Your task to perform on an android device: open chrome privacy settings Image 0: 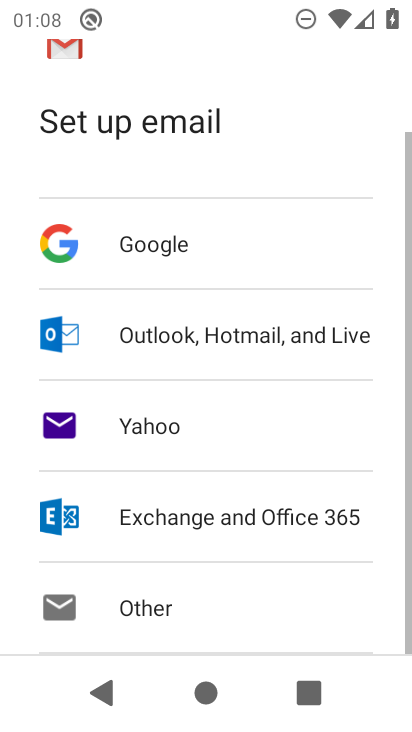
Step 0: drag from (199, 519) to (197, 214)
Your task to perform on an android device: open chrome privacy settings Image 1: 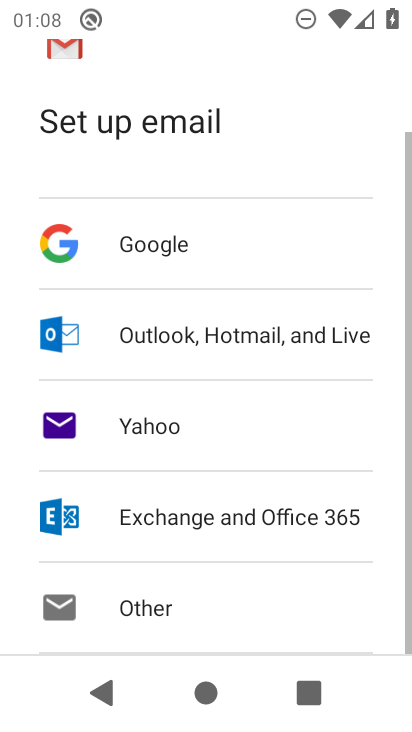
Step 1: drag from (227, 479) to (226, 258)
Your task to perform on an android device: open chrome privacy settings Image 2: 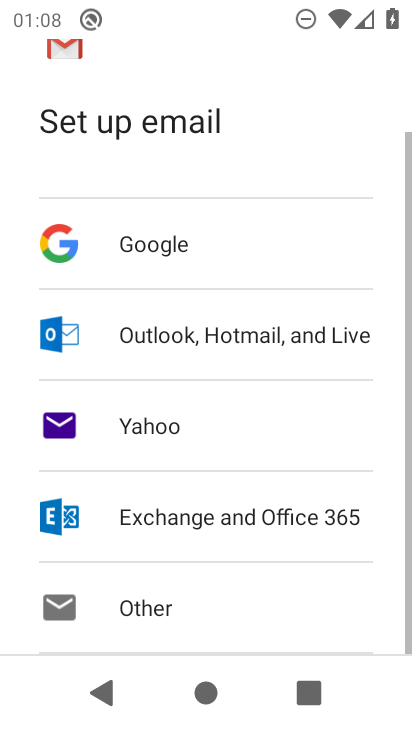
Step 2: drag from (206, 493) to (233, 151)
Your task to perform on an android device: open chrome privacy settings Image 3: 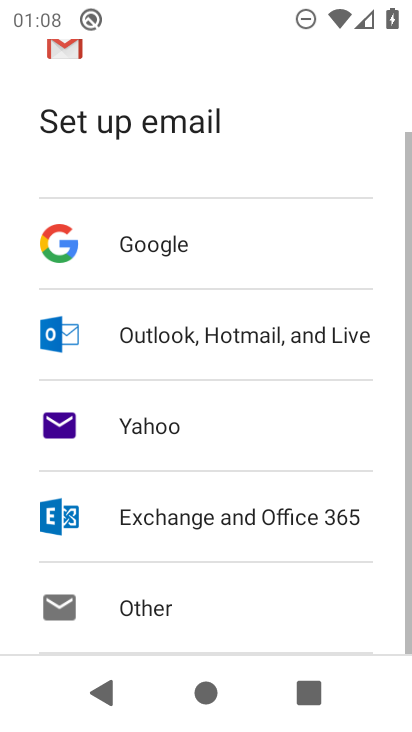
Step 3: press home button
Your task to perform on an android device: open chrome privacy settings Image 4: 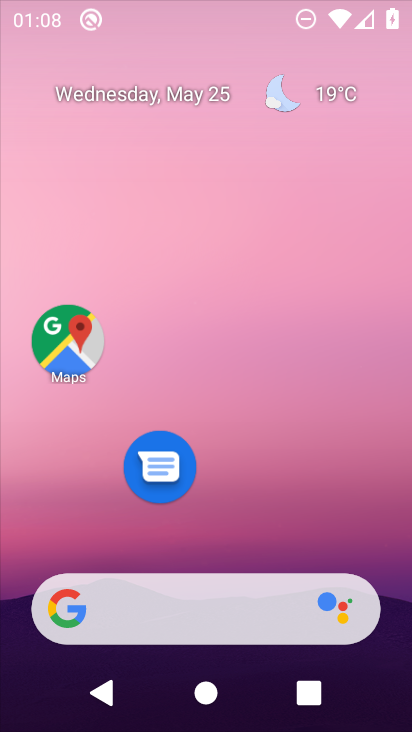
Step 4: drag from (158, 524) to (169, 197)
Your task to perform on an android device: open chrome privacy settings Image 5: 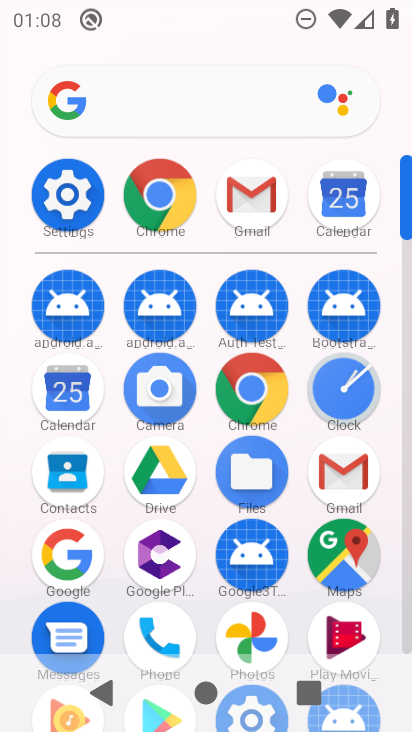
Step 5: click (70, 188)
Your task to perform on an android device: open chrome privacy settings Image 6: 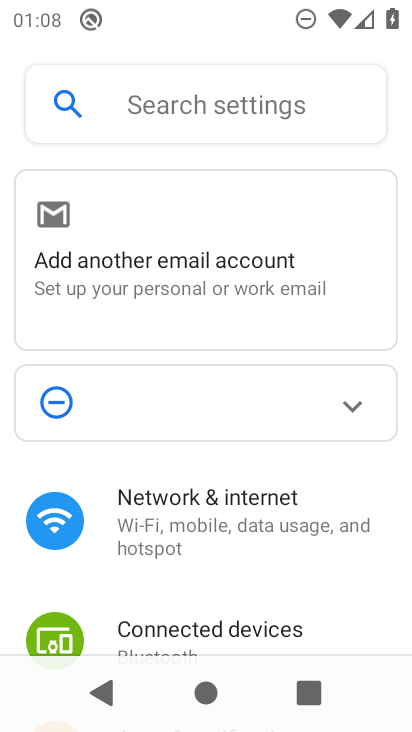
Step 6: drag from (226, 521) to (232, 244)
Your task to perform on an android device: open chrome privacy settings Image 7: 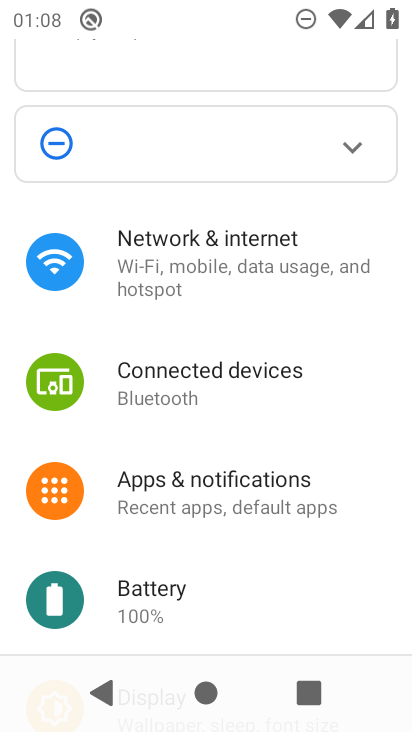
Step 7: drag from (229, 604) to (267, 118)
Your task to perform on an android device: open chrome privacy settings Image 8: 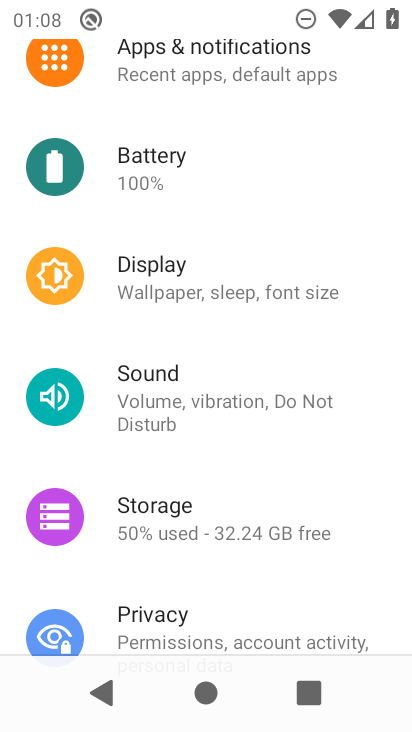
Step 8: drag from (180, 556) to (179, 214)
Your task to perform on an android device: open chrome privacy settings Image 9: 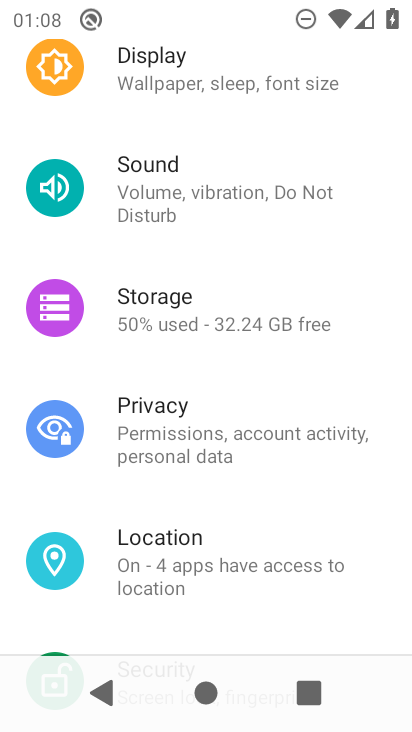
Step 9: drag from (219, 553) to (246, 177)
Your task to perform on an android device: open chrome privacy settings Image 10: 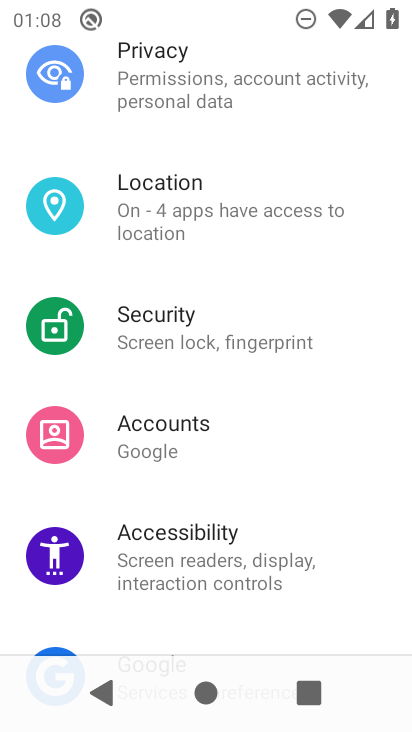
Step 10: press home button
Your task to perform on an android device: open chrome privacy settings Image 11: 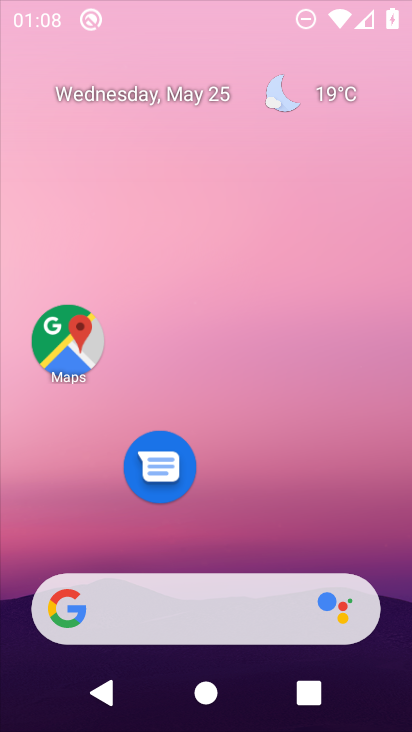
Step 11: drag from (192, 581) to (255, 82)
Your task to perform on an android device: open chrome privacy settings Image 12: 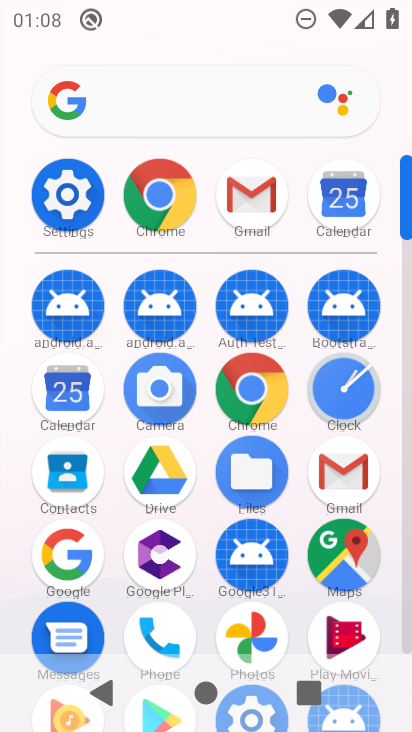
Step 12: click (163, 199)
Your task to perform on an android device: open chrome privacy settings Image 13: 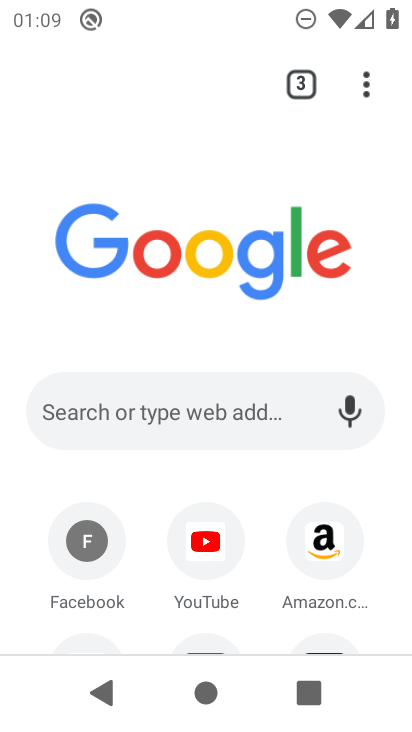
Step 13: click (372, 94)
Your task to perform on an android device: open chrome privacy settings Image 14: 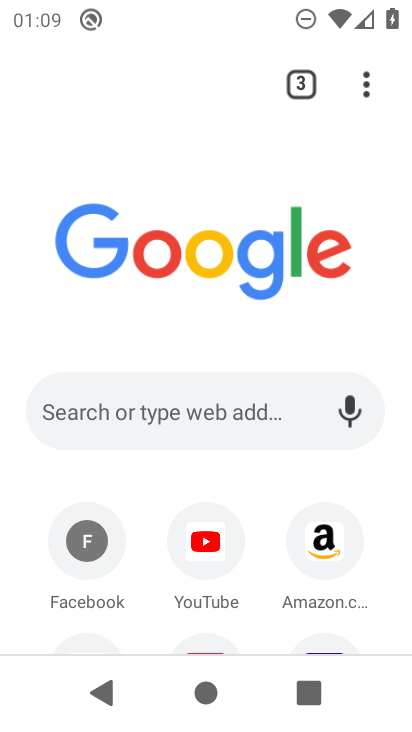
Step 14: click (367, 73)
Your task to perform on an android device: open chrome privacy settings Image 15: 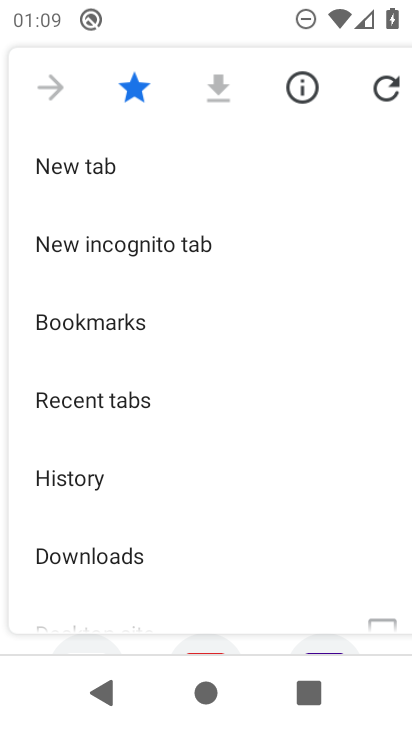
Step 15: drag from (184, 518) to (271, 137)
Your task to perform on an android device: open chrome privacy settings Image 16: 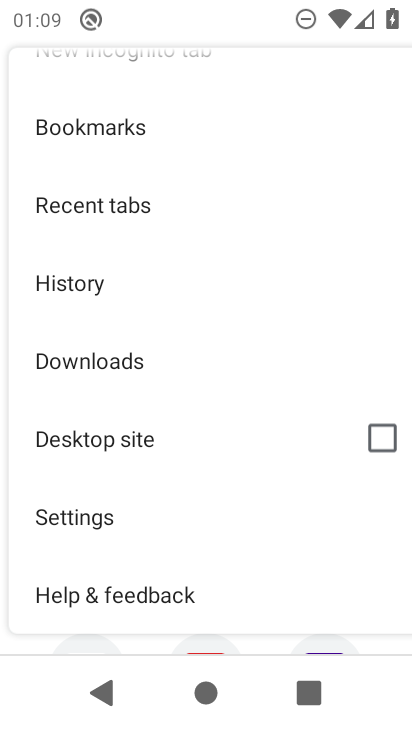
Step 16: click (130, 509)
Your task to perform on an android device: open chrome privacy settings Image 17: 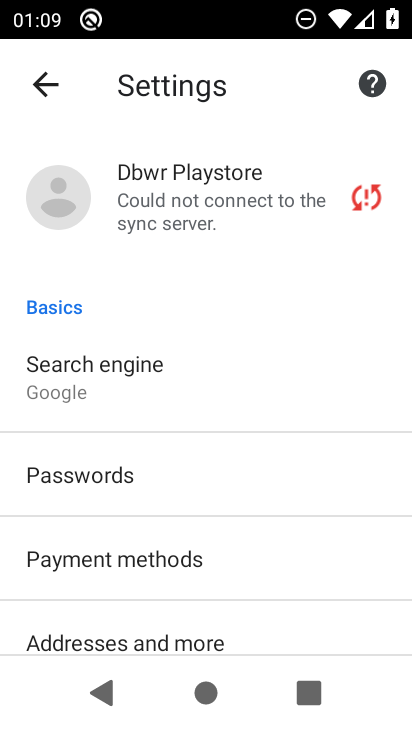
Step 17: drag from (174, 510) to (227, 241)
Your task to perform on an android device: open chrome privacy settings Image 18: 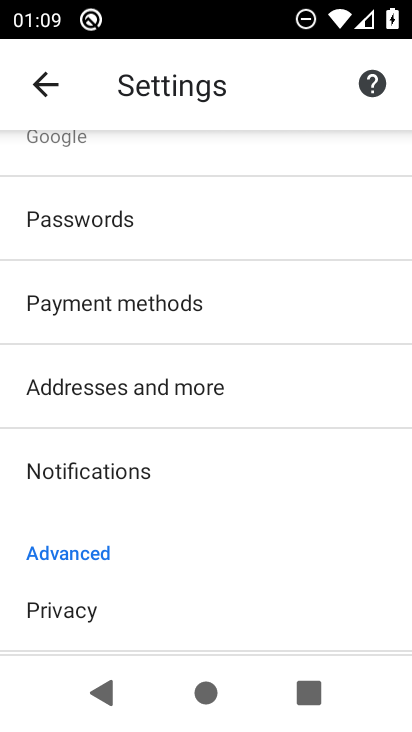
Step 18: drag from (164, 553) to (249, 242)
Your task to perform on an android device: open chrome privacy settings Image 19: 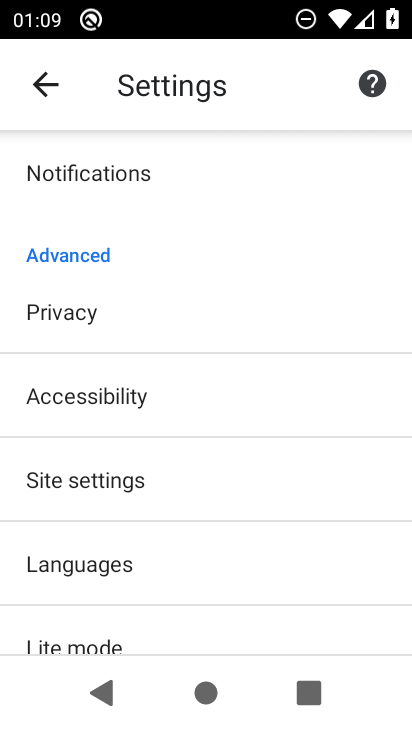
Step 19: click (131, 337)
Your task to perform on an android device: open chrome privacy settings Image 20: 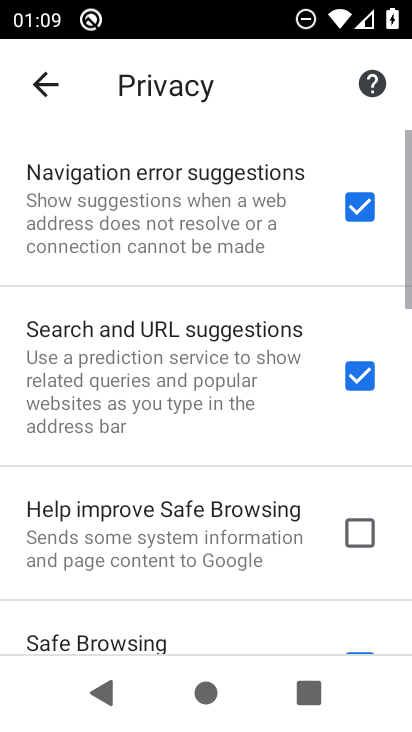
Step 20: task complete